Your task to perform on an android device: Add "logitech g pro" to the cart on target.com Image 0: 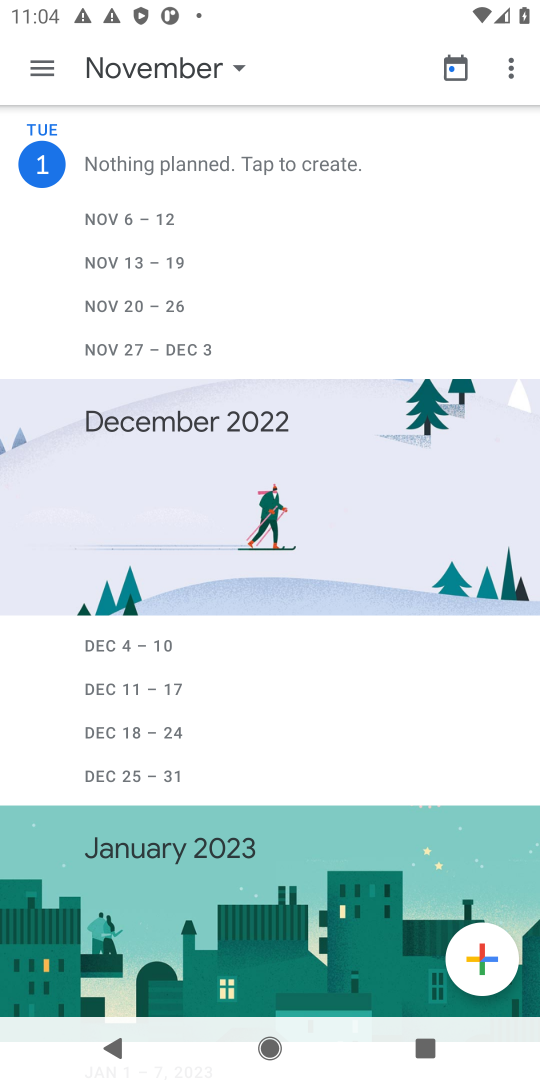
Step 0: press home button
Your task to perform on an android device: Add "logitech g pro" to the cart on target.com Image 1: 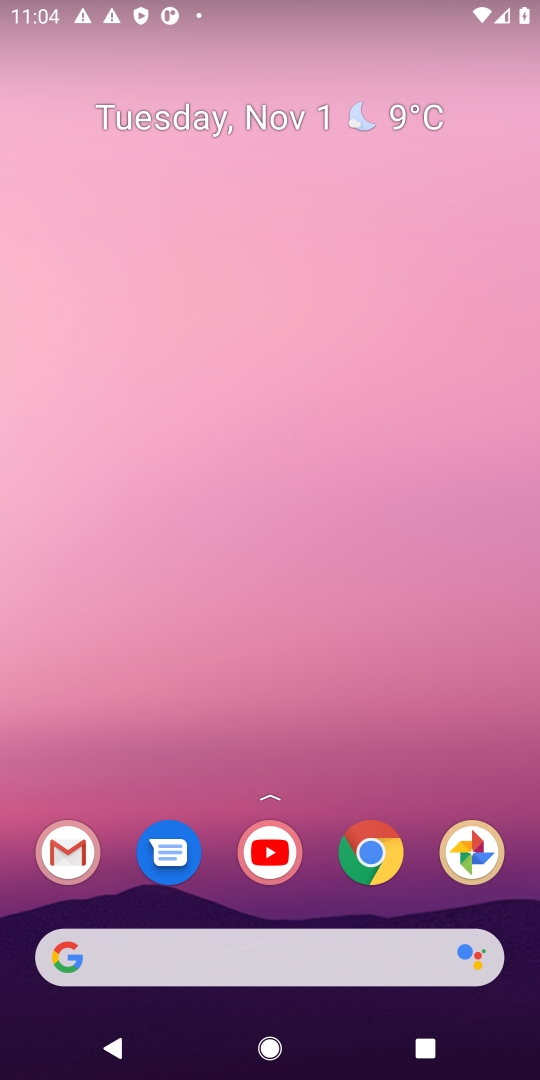
Step 1: drag from (287, 713) to (289, 444)
Your task to perform on an android device: Add "logitech g pro" to the cart on target.com Image 2: 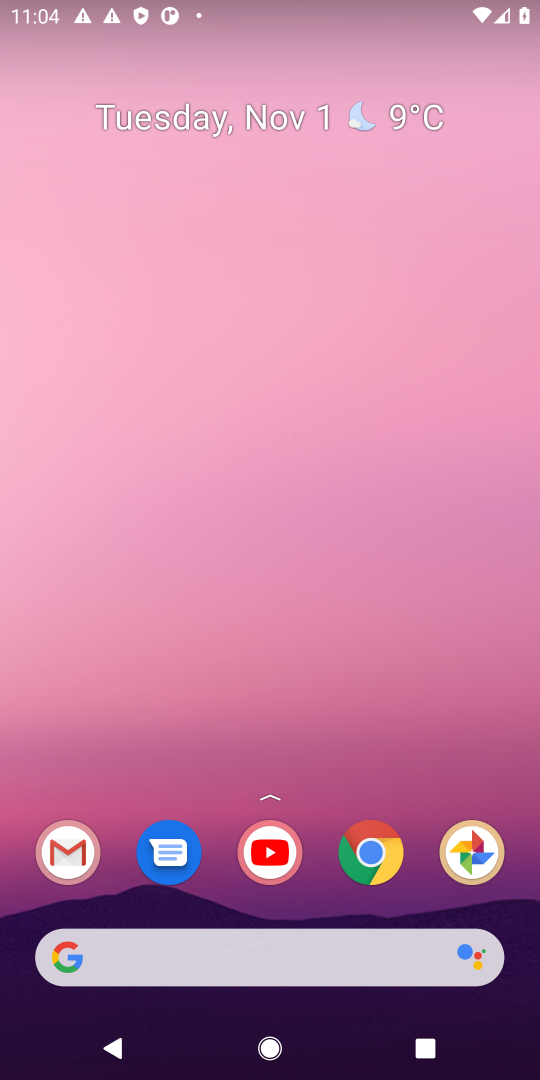
Step 2: drag from (271, 382) to (240, 251)
Your task to perform on an android device: Add "logitech g pro" to the cart on target.com Image 3: 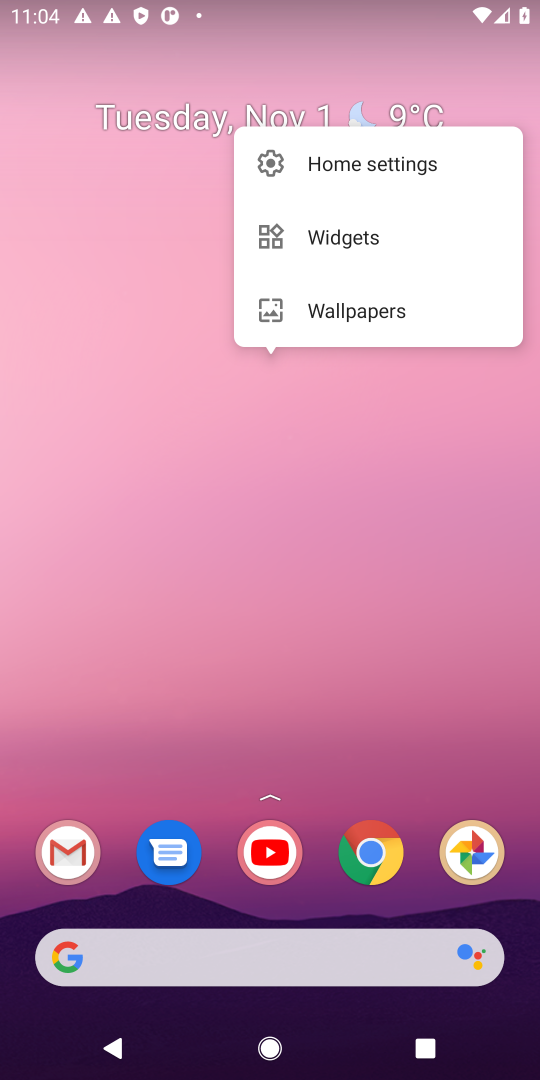
Step 3: click (329, 730)
Your task to perform on an android device: Add "logitech g pro" to the cart on target.com Image 4: 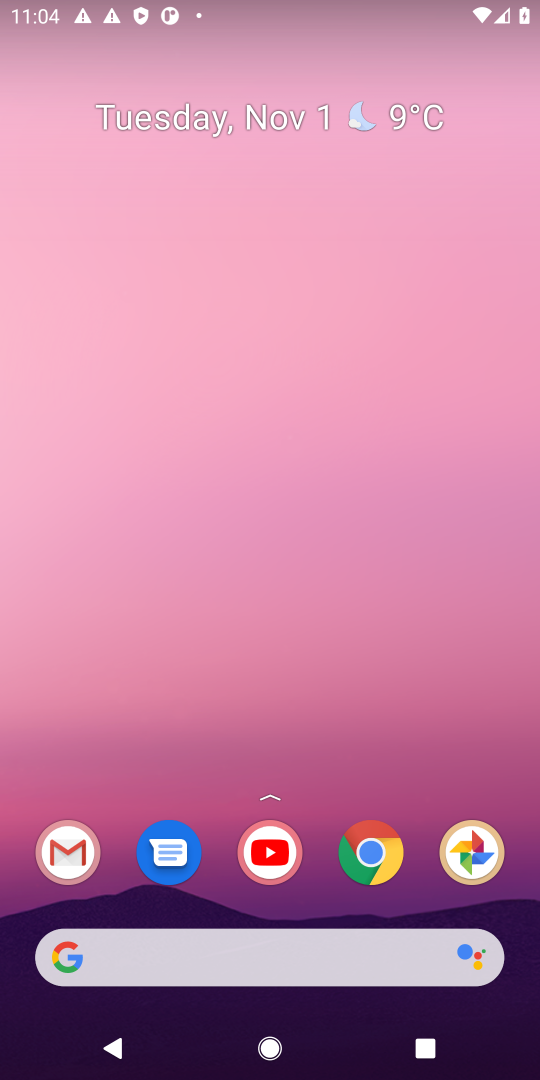
Step 4: click (267, 799)
Your task to perform on an android device: Add "logitech g pro" to the cart on target.com Image 5: 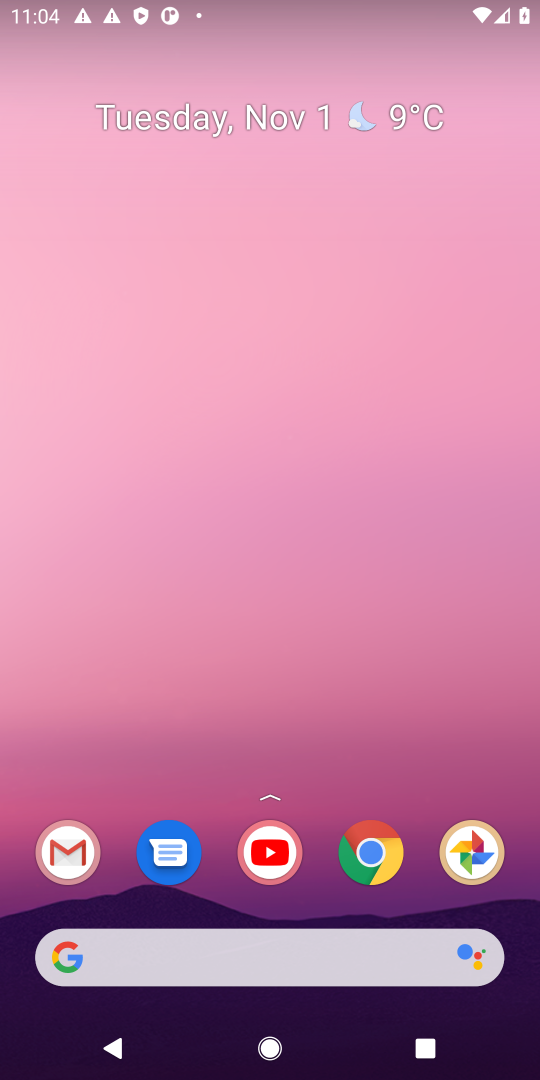
Step 5: drag from (267, 802) to (284, 406)
Your task to perform on an android device: Add "logitech g pro" to the cart on target.com Image 6: 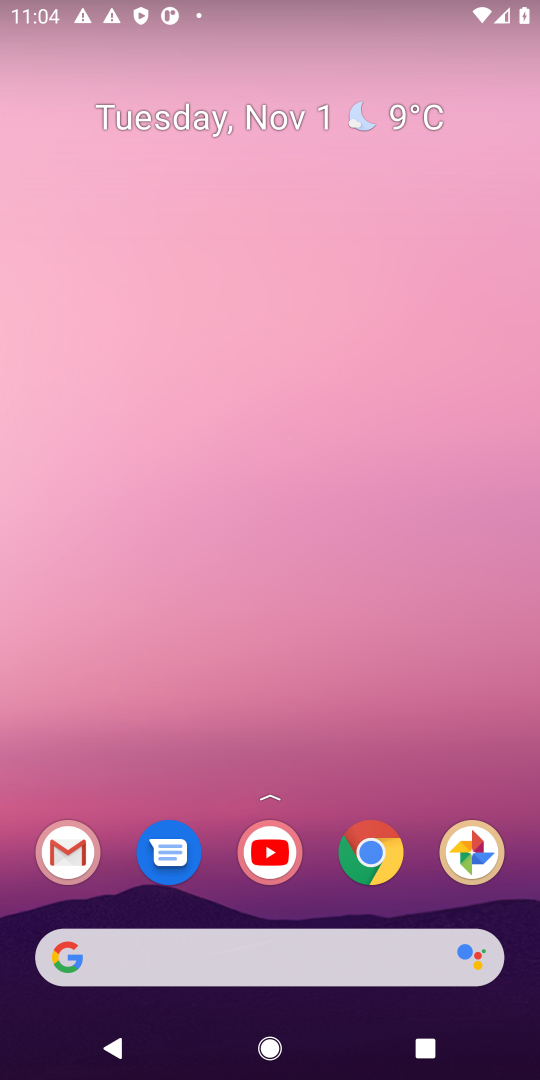
Step 6: drag from (277, 821) to (185, 163)
Your task to perform on an android device: Add "logitech g pro" to the cart on target.com Image 7: 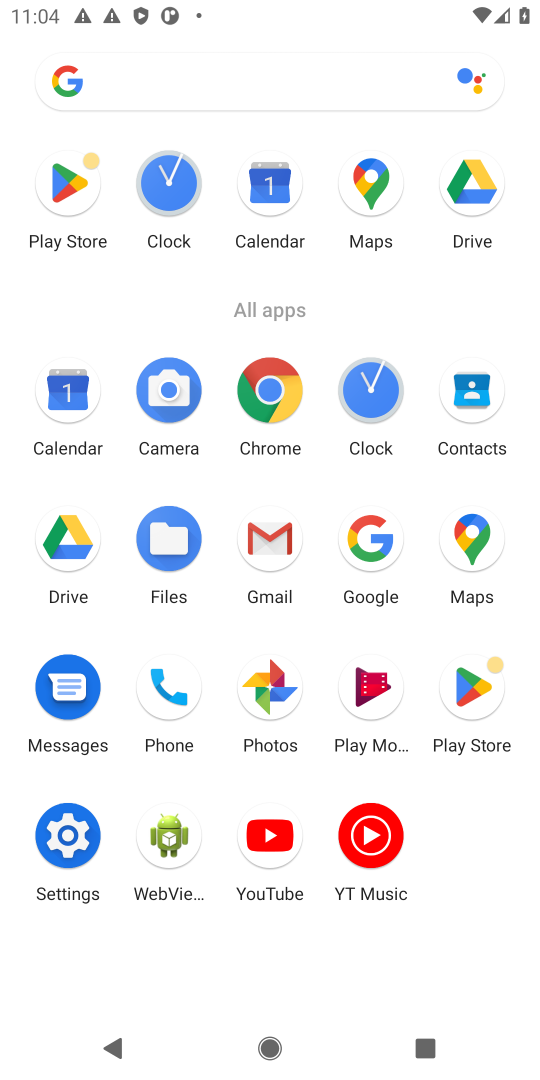
Step 7: click (379, 571)
Your task to perform on an android device: Add "logitech g pro" to the cart on target.com Image 8: 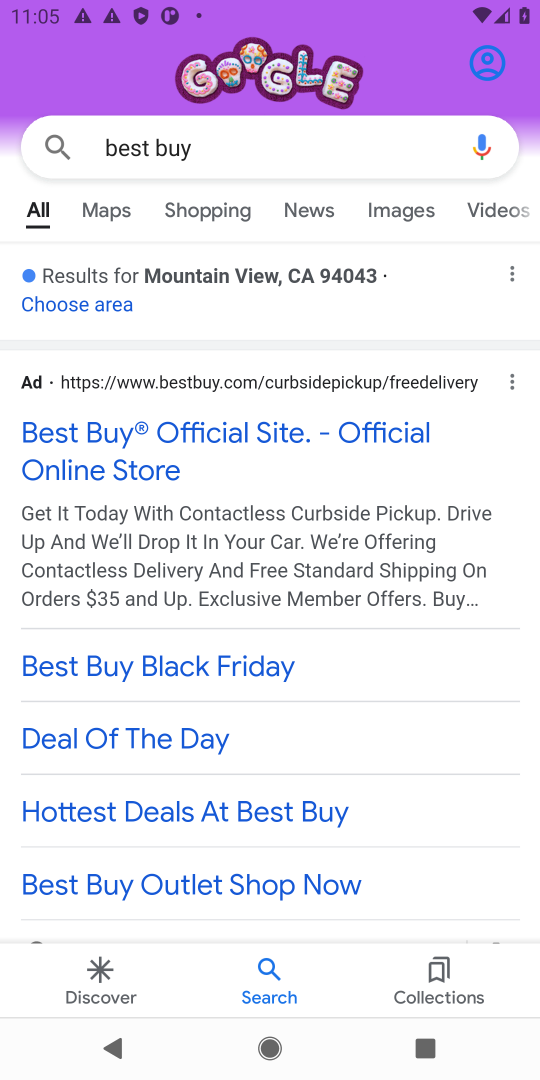
Step 8: click (345, 136)
Your task to perform on an android device: Add "logitech g pro" to the cart on target.com Image 9: 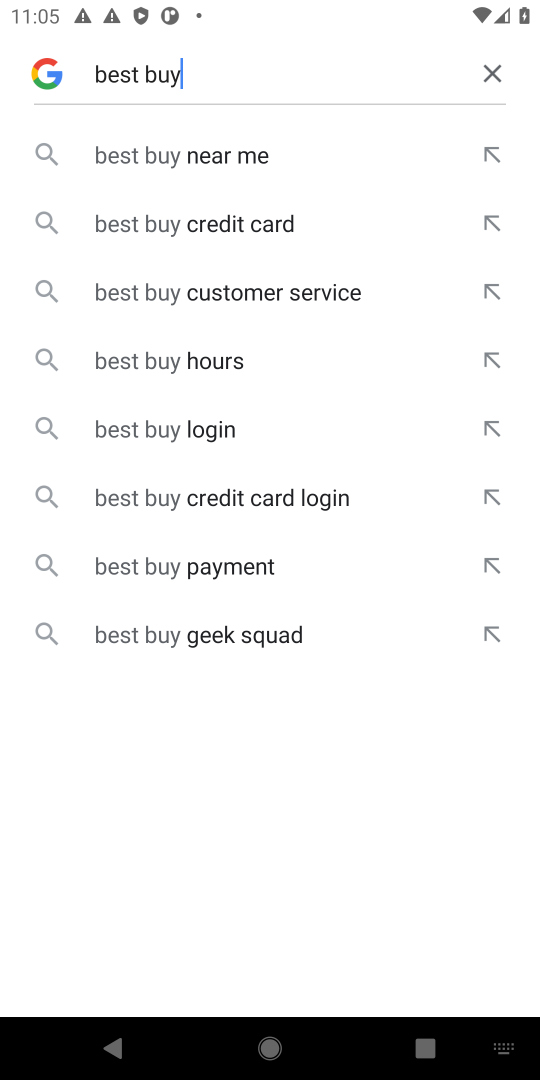
Step 9: click (494, 77)
Your task to perform on an android device: Add "logitech g pro" to the cart on target.com Image 10: 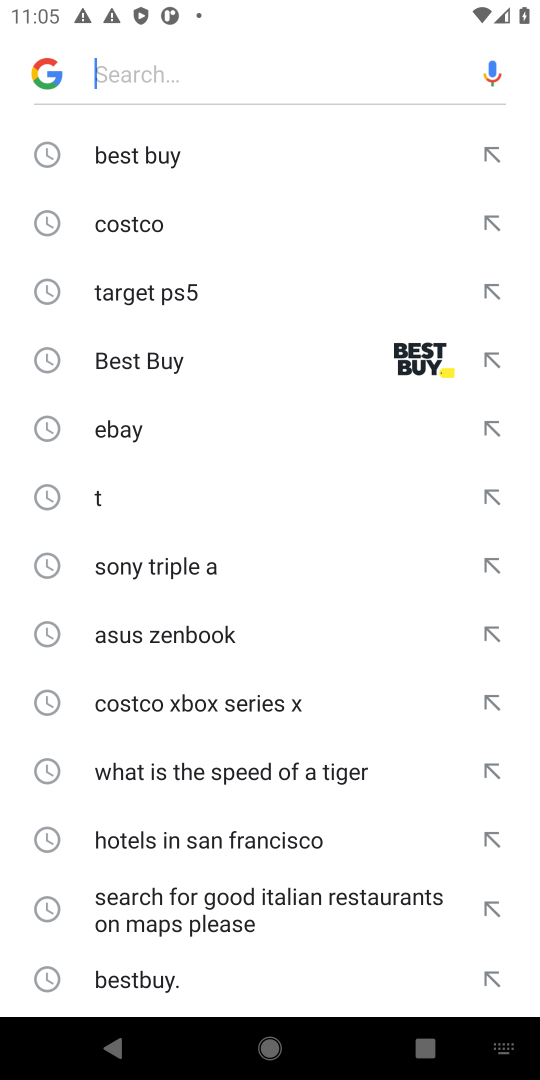
Step 10: type "target.com"
Your task to perform on an android device: Add "logitech g pro" to the cart on target.com Image 11: 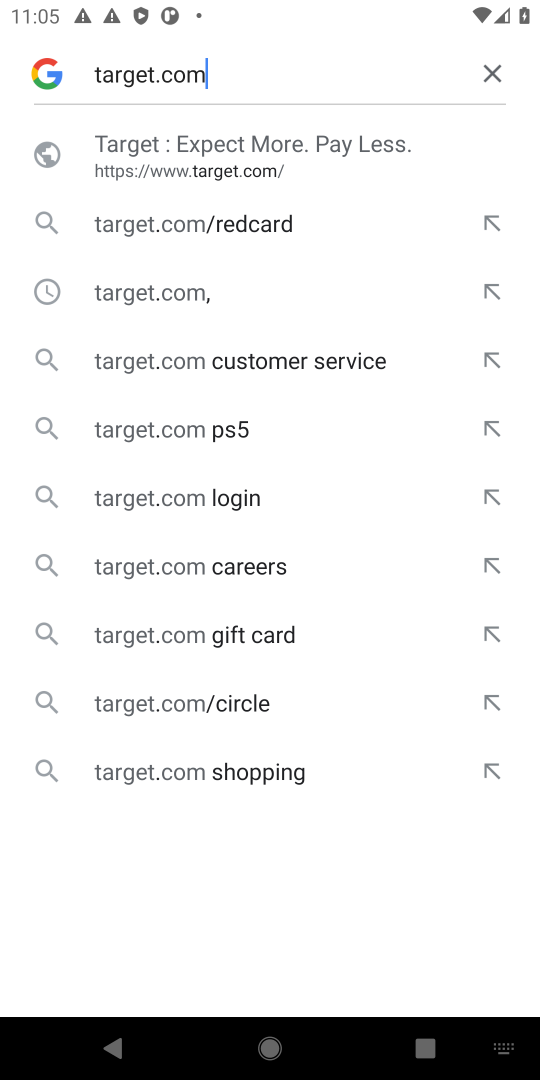
Step 11: click (249, 160)
Your task to perform on an android device: Add "logitech g pro" to the cart on target.com Image 12: 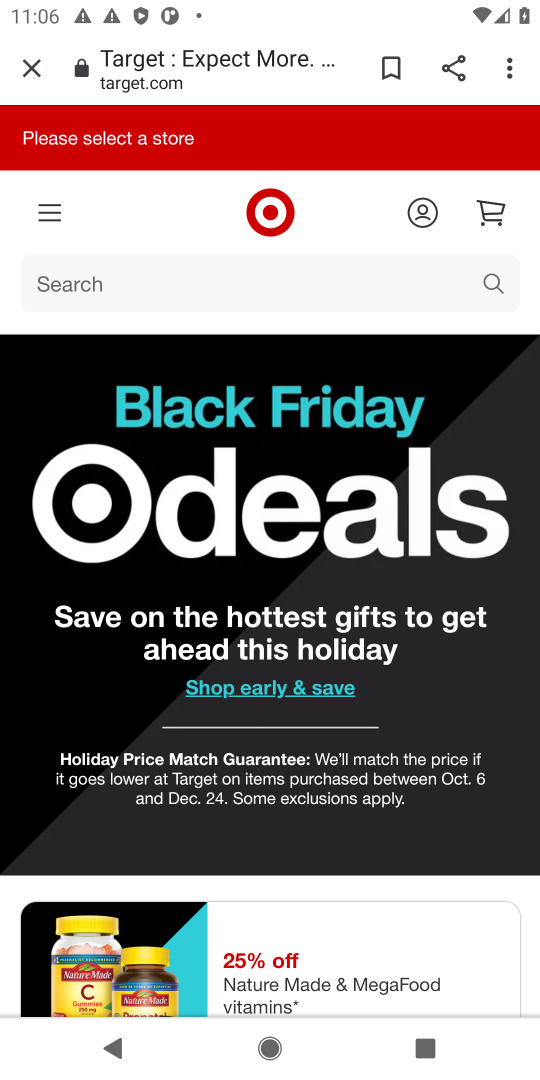
Step 12: click (449, 289)
Your task to perform on an android device: Add "logitech g pro" to the cart on target.com Image 13: 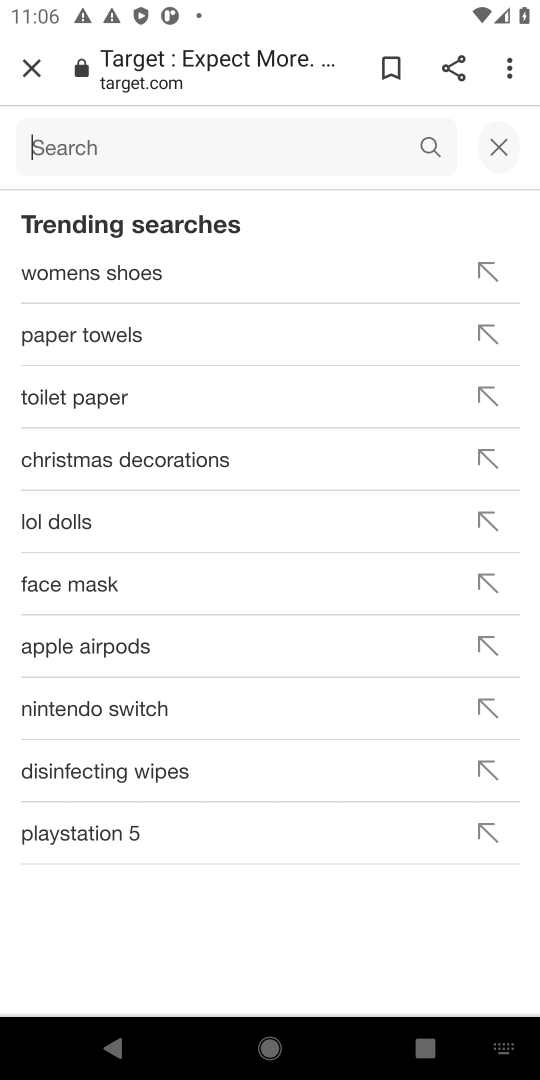
Step 13: type "logitech g pro"
Your task to perform on an android device: Add "logitech g pro" to the cart on target.com Image 14: 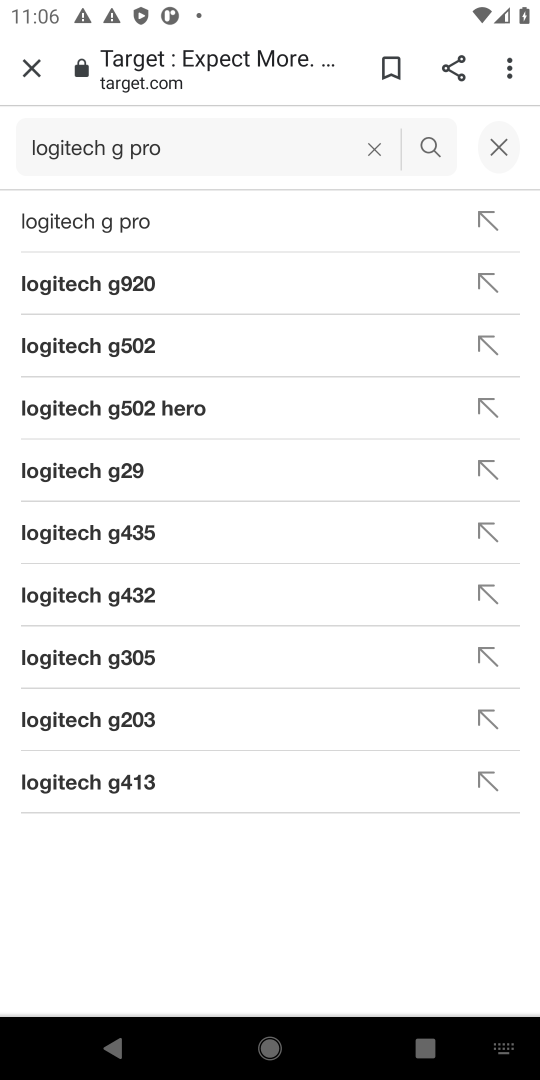
Step 14: click (200, 221)
Your task to perform on an android device: Add "logitech g pro" to the cart on target.com Image 15: 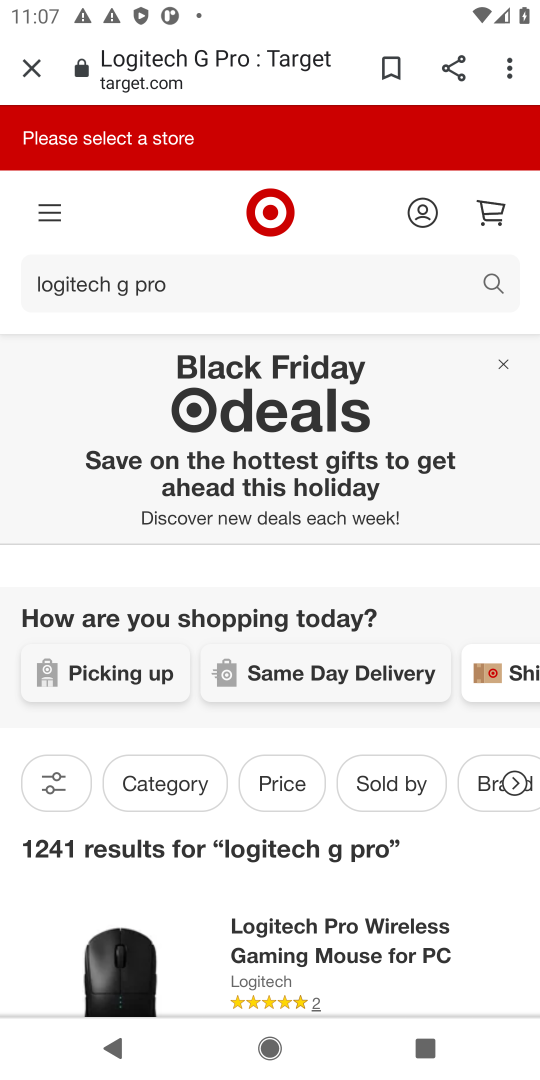
Step 15: drag from (315, 666) to (406, 138)
Your task to perform on an android device: Add "logitech g pro" to the cart on target.com Image 16: 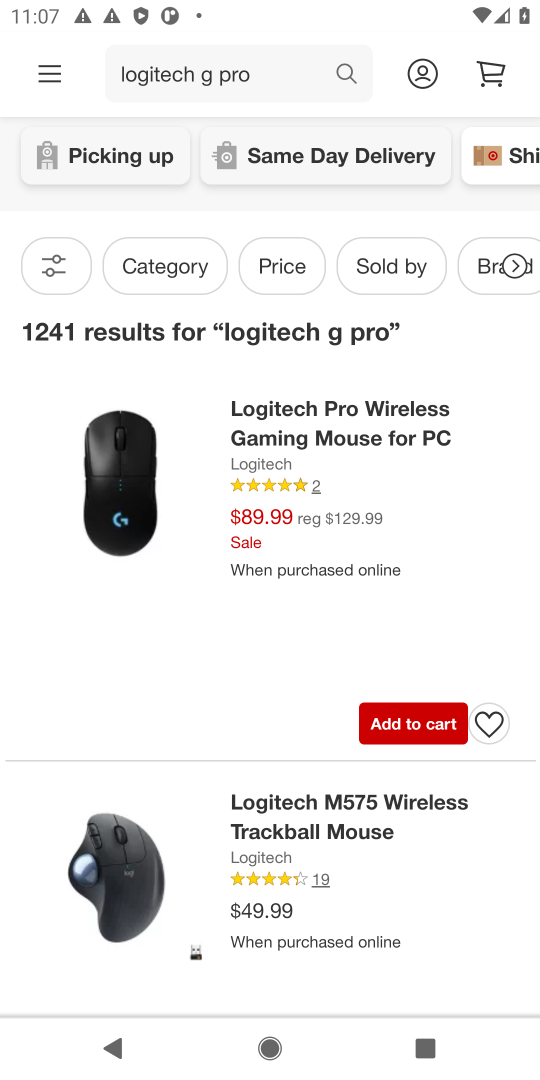
Step 16: click (389, 724)
Your task to perform on an android device: Add "logitech g pro" to the cart on target.com Image 17: 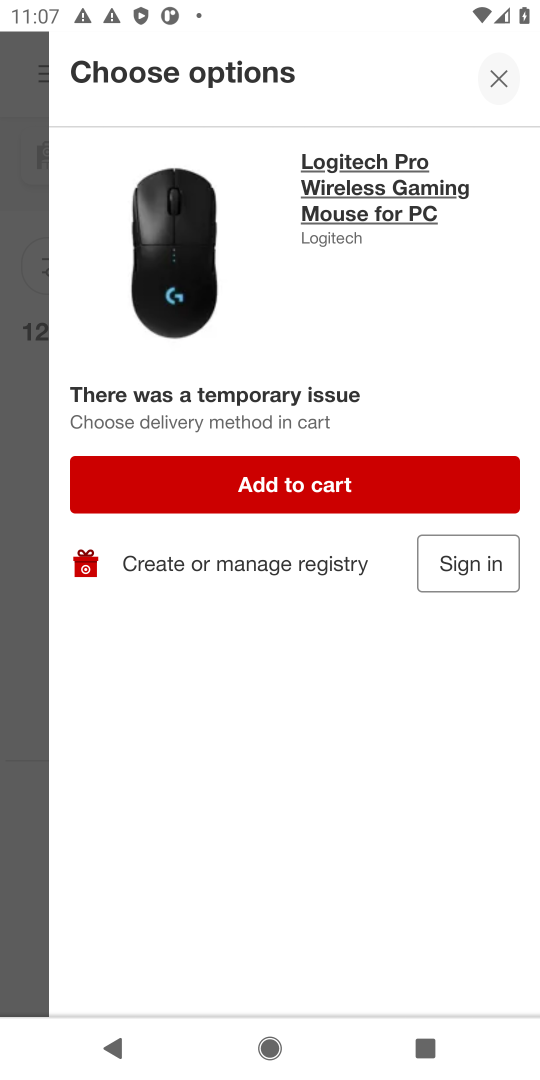
Step 17: click (504, 489)
Your task to perform on an android device: Add "logitech g pro" to the cart on target.com Image 18: 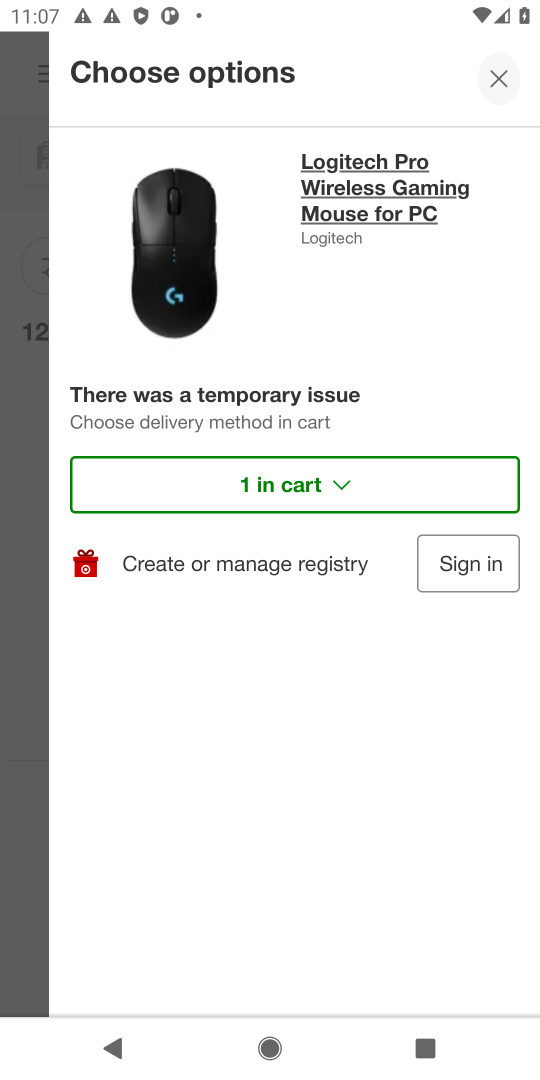
Step 18: task complete